Your task to perform on an android device: Turn on the flashlight Image 0: 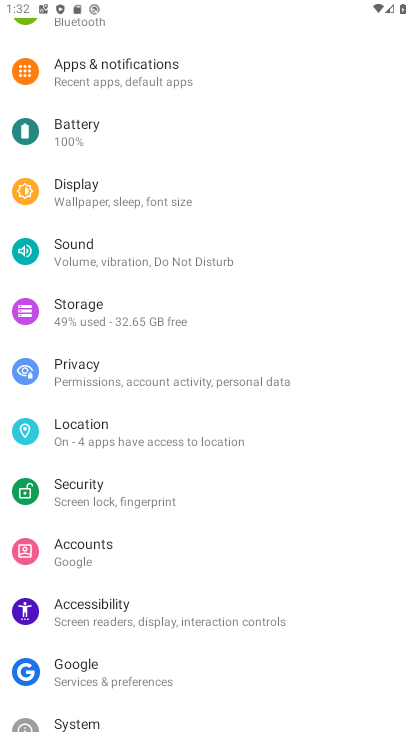
Step 0: task impossible